Your task to perform on an android device: Do I have any events this weekend? Image 0: 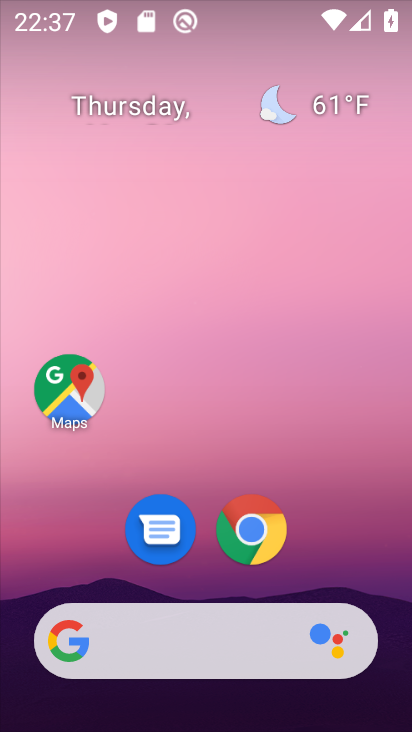
Step 0: drag from (369, 547) to (281, 129)
Your task to perform on an android device: Do I have any events this weekend? Image 1: 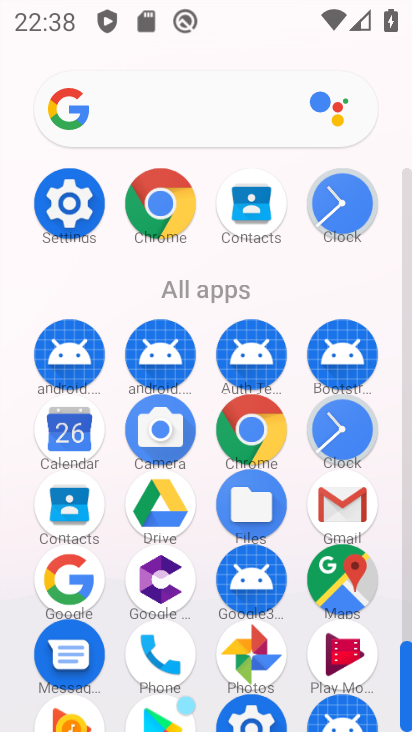
Step 1: click (80, 443)
Your task to perform on an android device: Do I have any events this weekend? Image 2: 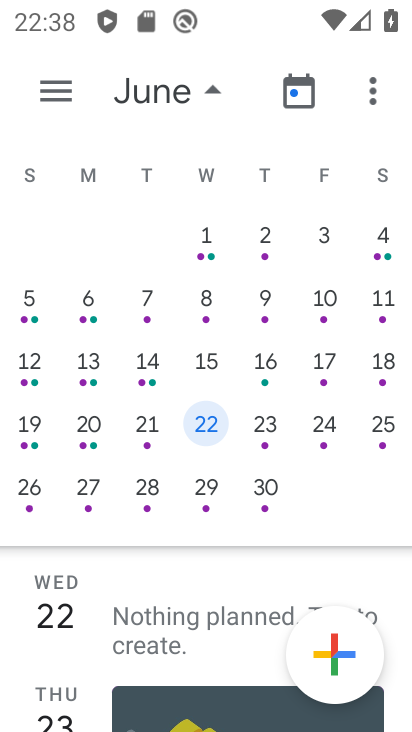
Step 2: task complete